Your task to perform on an android device: Go to Yahoo.com Image 0: 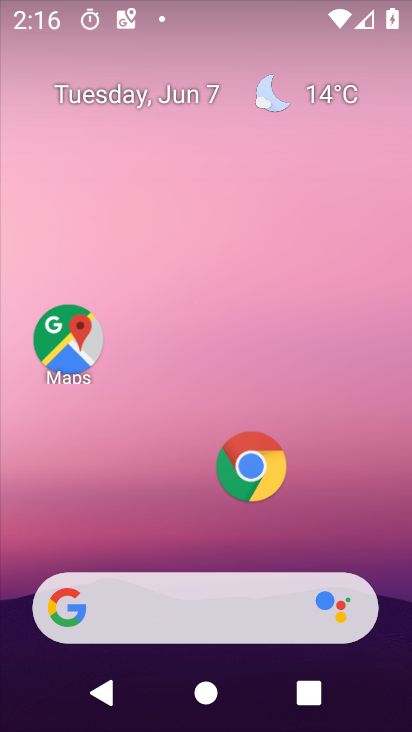
Step 0: click (182, 229)
Your task to perform on an android device: Go to Yahoo.com Image 1: 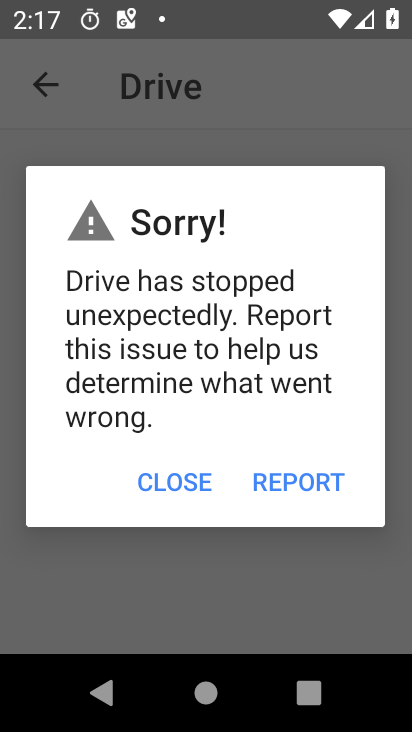
Step 1: press home button
Your task to perform on an android device: Go to Yahoo.com Image 2: 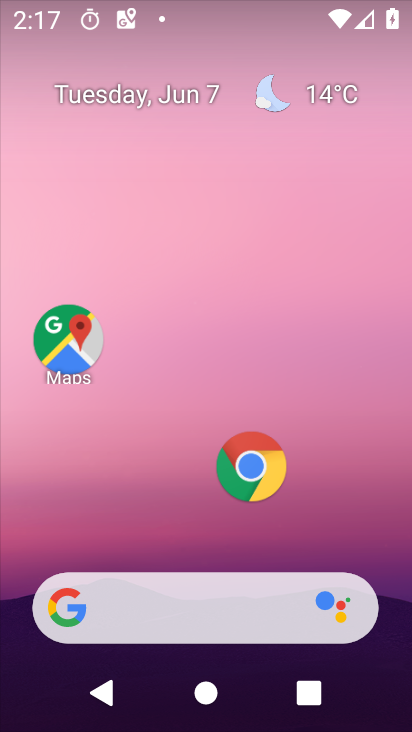
Step 2: click (252, 476)
Your task to perform on an android device: Go to Yahoo.com Image 3: 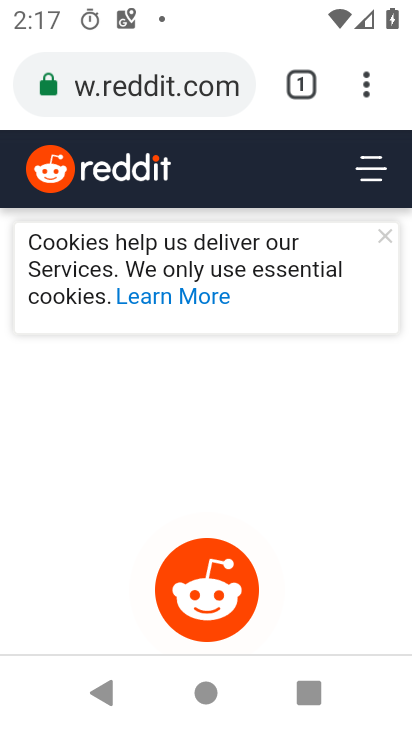
Step 3: click (310, 89)
Your task to perform on an android device: Go to Yahoo.com Image 4: 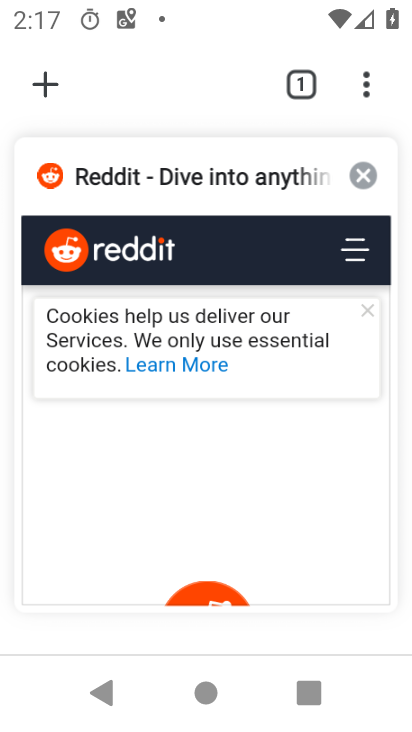
Step 4: click (363, 172)
Your task to perform on an android device: Go to Yahoo.com Image 5: 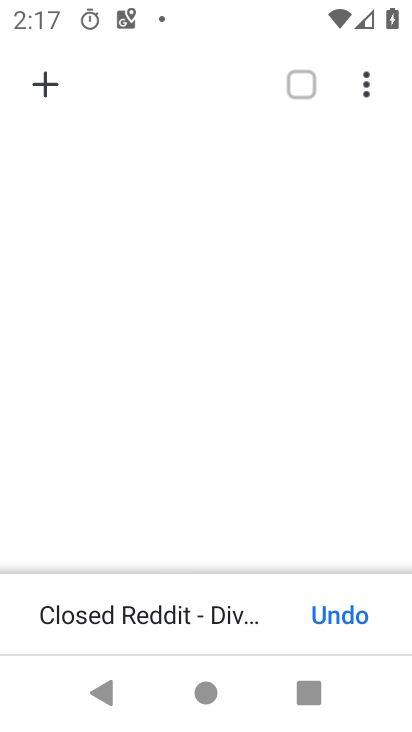
Step 5: click (48, 86)
Your task to perform on an android device: Go to Yahoo.com Image 6: 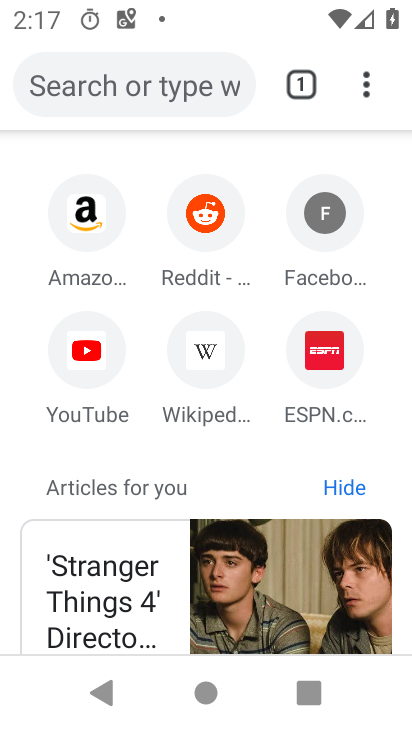
Step 6: click (205, 86)
Your task to perform on an android device: Go to Yahoo.com Image 7: 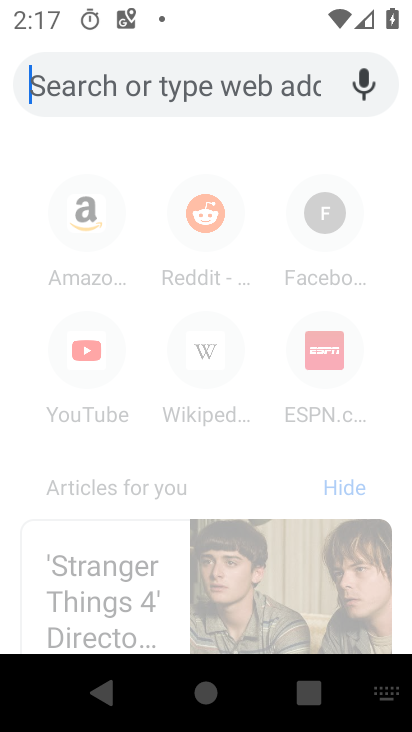
Step 7: type "yahoo.com"
Your task to perform on an android device: Go to Yahoo.com Image 8: 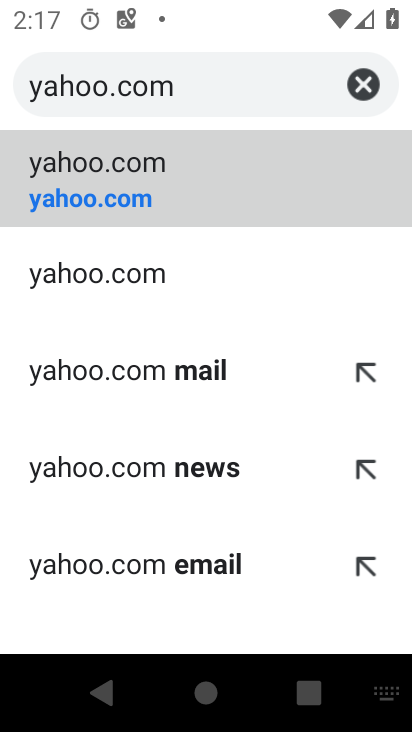
Step 8: click (113, 164)
Your task to perform on an android device: Go to Yahoo.com Image 9: 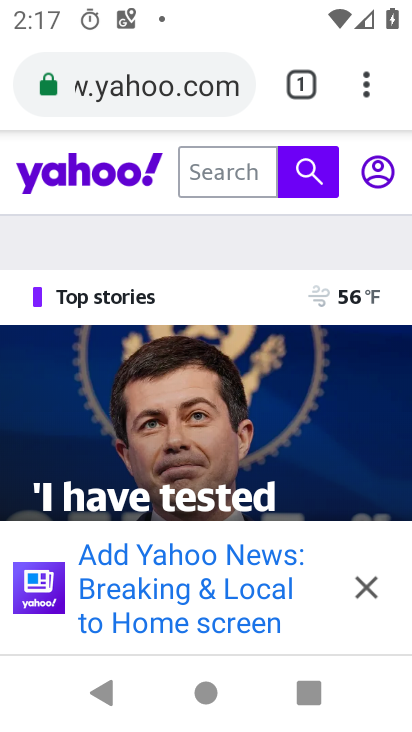
Step 9: task complete